Your task to perform on an android device: Go to privacy settings Image 0: 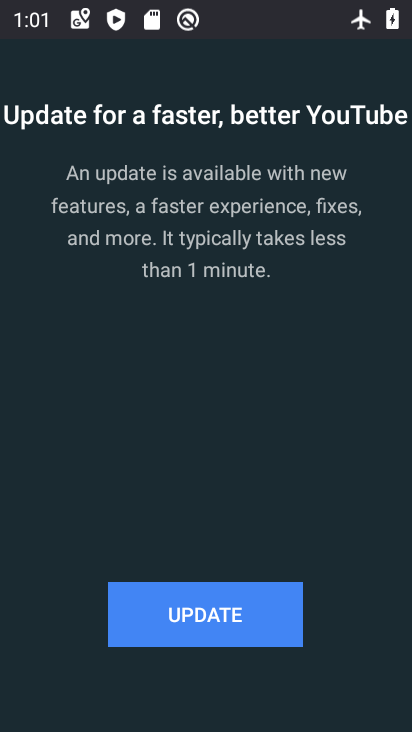
Step 0: press home button
Your task to perform on an android device: Go to privacy settings Image 1: 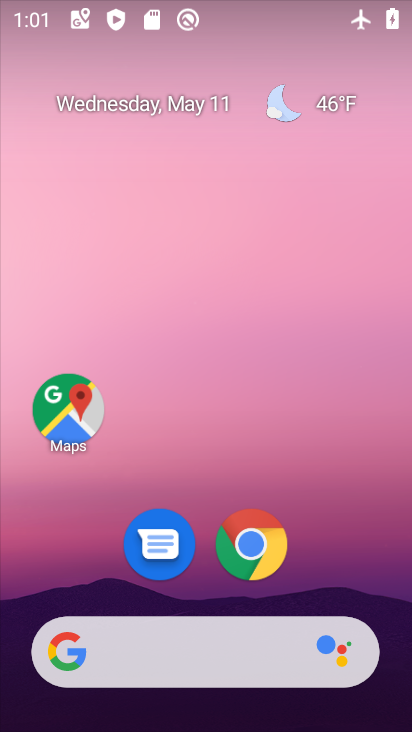
Step 1: drag from (398, 650) to (286, 59)
Your task to perform on an android device: Go to privacy settings Image 2: 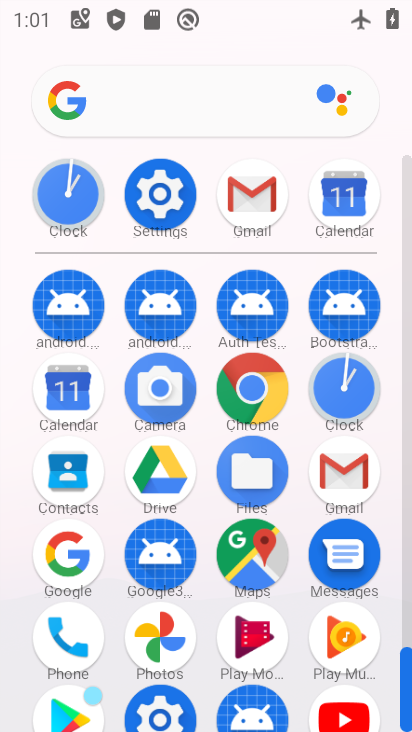
Step 2: drag from (406, 615) to (398, 514)
Your task to perform on an android device: Go to privacy settings Image 3: 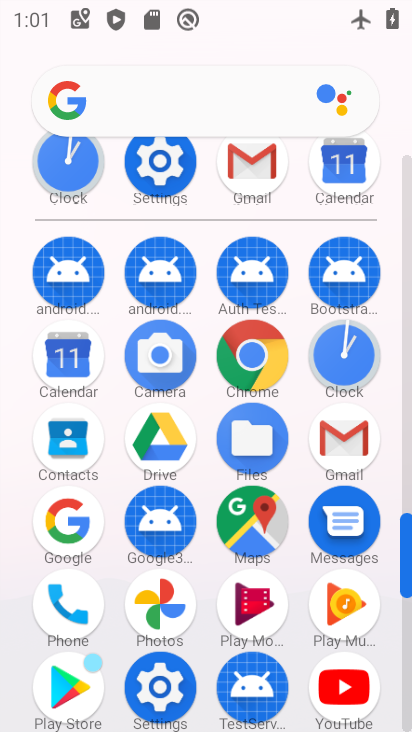
Step 3: click (159, 690)
Your task to perform on an android device: Go to privacy settings Image 4: 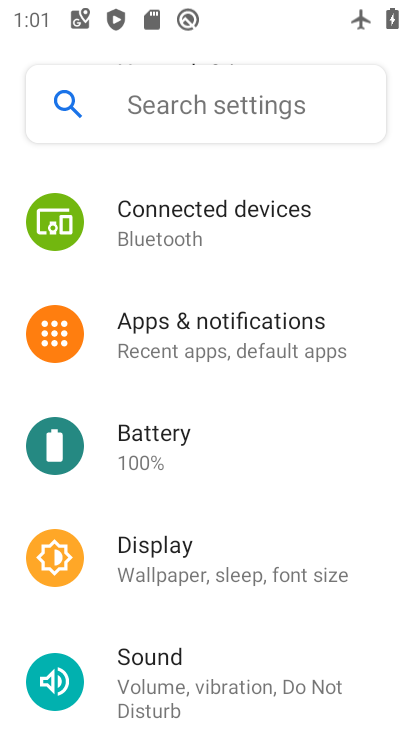
Step 4: drag from (159, 690) to (231, 189)
Your task to perform on an android device: Go to privacy settings Image 5: 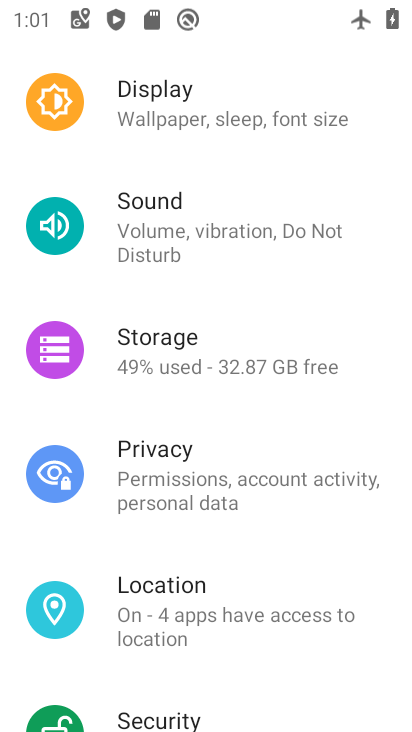
Step 5: click (191, 462)
Your task to perform on an android device: Go to privacy settings Image 6: 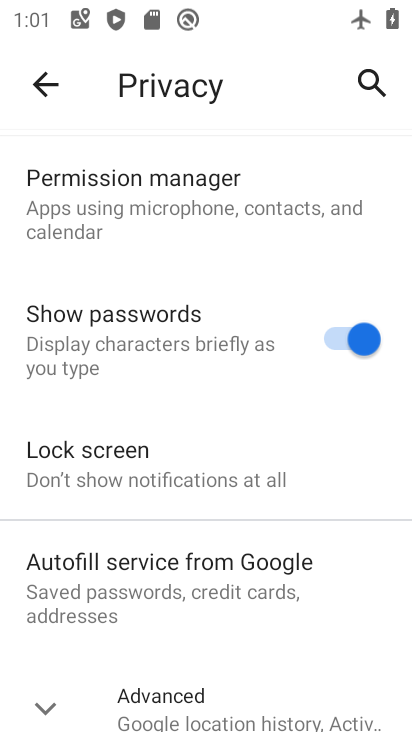
Step 6: task complete